Your task to perform on an android device: Open Google Maps and go to "Timeline" Image 0: 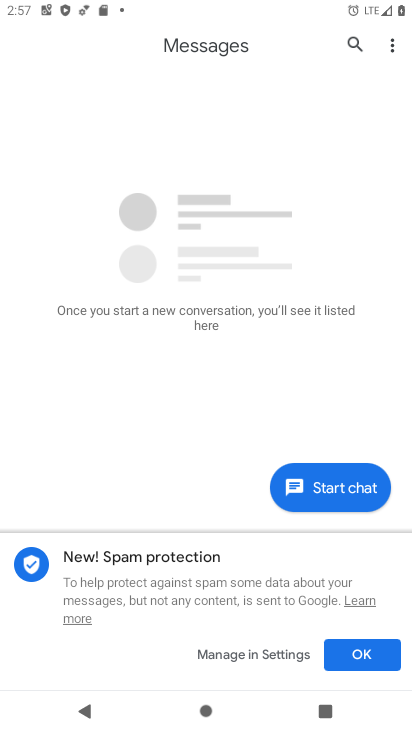
Step 0: press home button
Your task to perform on an android device: Open Google Maps and go to "Timeline" Image 1: 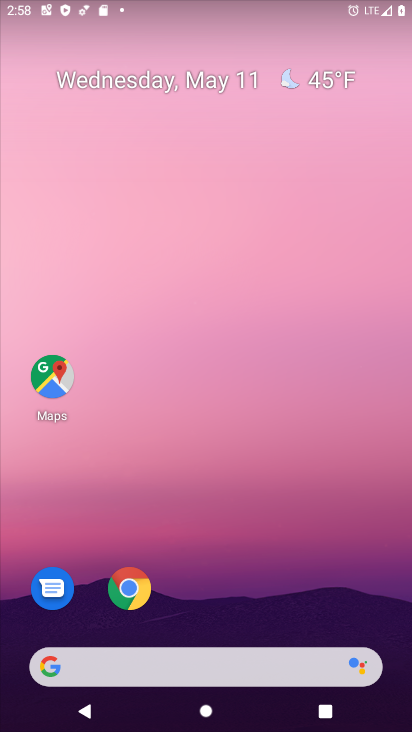
Step 1: click (30, 378)
Your task to perform on an android device: Open Google Maps and go to "Timeline" Image 2: 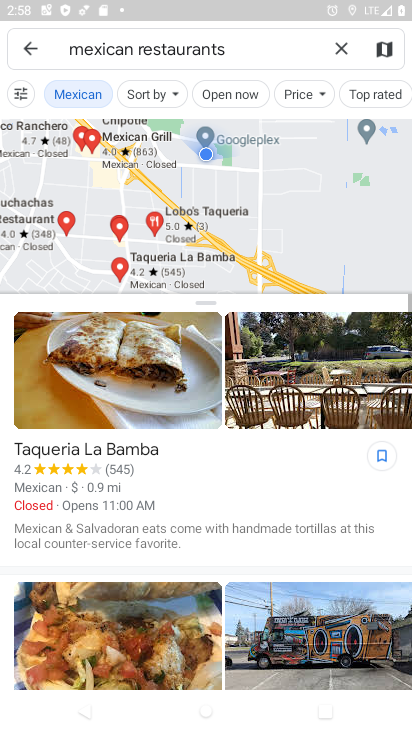
Step 2: click (25, 56)
Your task to perform on an android device: Open Google Maps and go to "Timeline" Image 3: 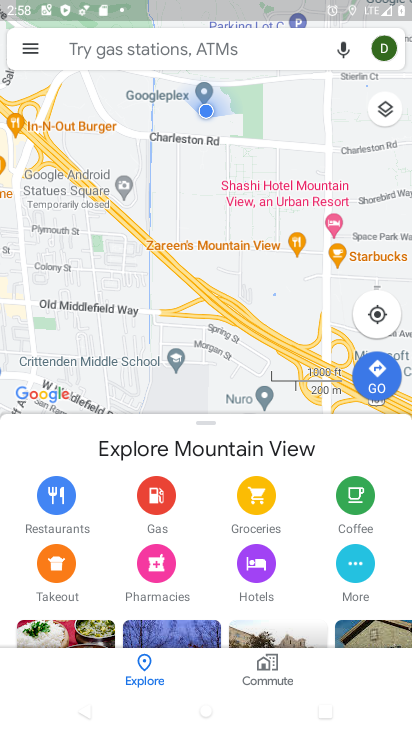
Step 3: click (25, 56)
Your task to perform on an android device: Open Google Maps and go to "Timeline" Image 4: 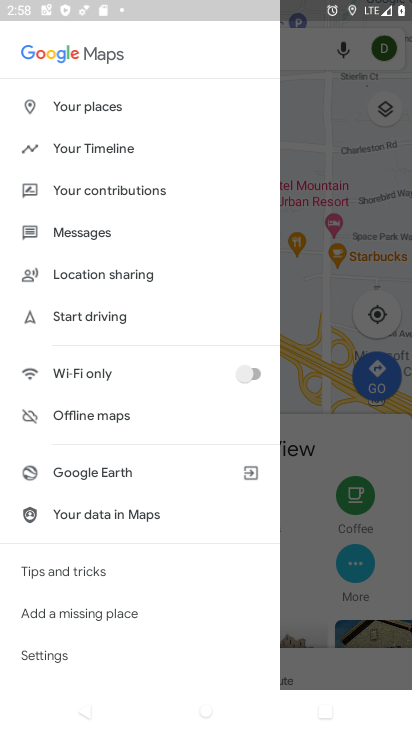
Step 4: click (117, 151)
Your task to perform on an android device: Open Google Maps and go to "Timeline" Image 5: 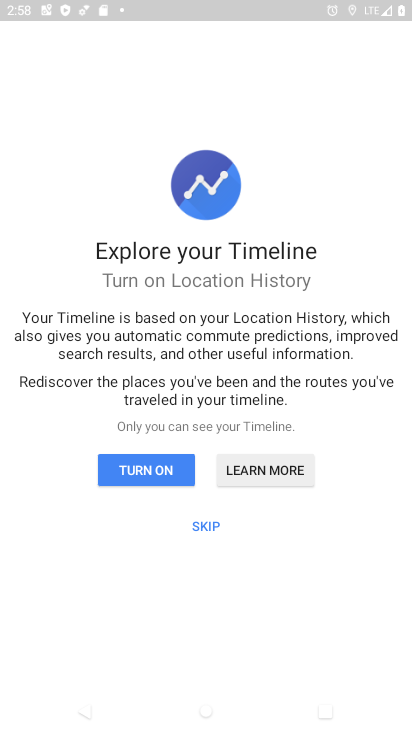
Step 5: click (160, 472)
Your task to perform on an android device: Open Google Maps and go to "Timeline" Image 6: 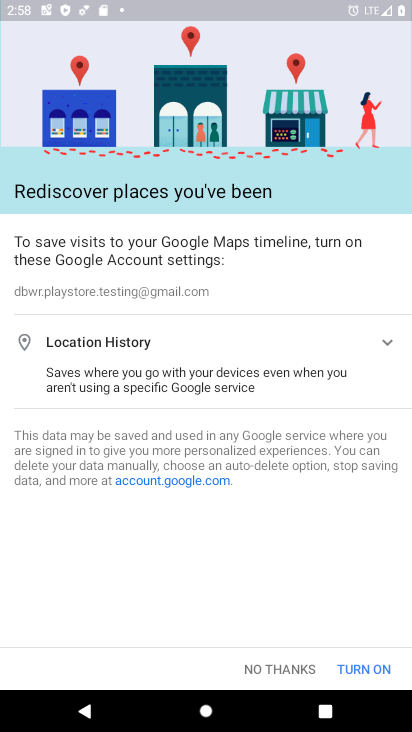
Step 6: click (370, 674)
Your task to perform on an android device: Open Google Maps and go to "Timeline" Image 7: 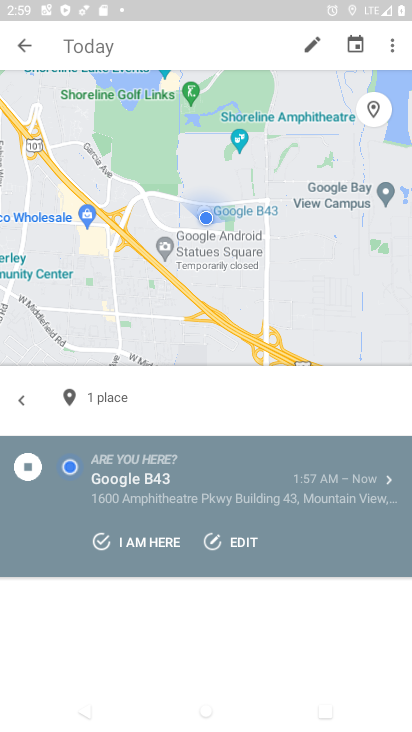
Step 7: task complete